Your task to perform on an android device: Go to Google Image 0: 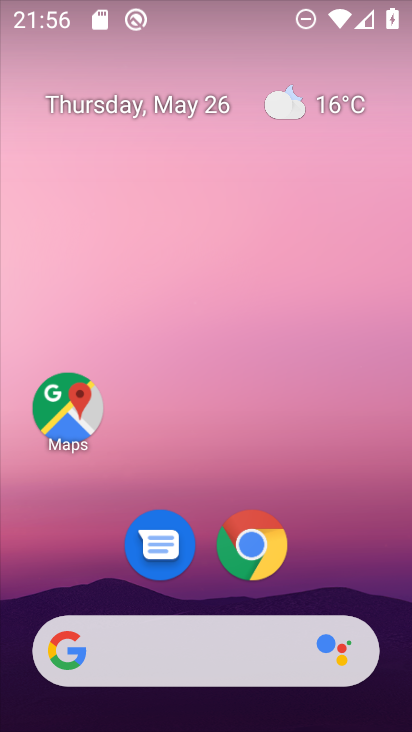
Step 0: drag from (328, 553) to (319, 40)
Your task to perform on an android device: Go to Google Image 1: 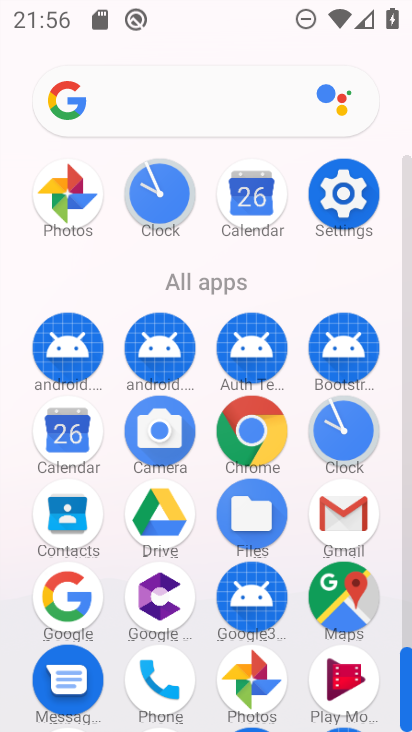
Step 1: click (63, 597)
Your task to perform on an android device: Go to Google Image 2: 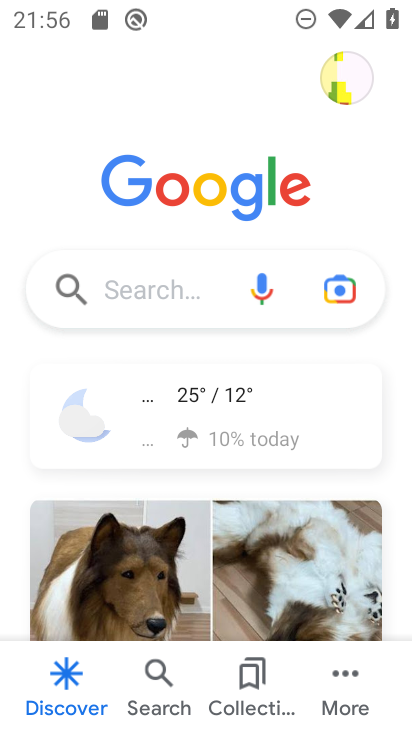
Step 2: task complete